Your task to perform on an android device: Go to Amazon Image 0: 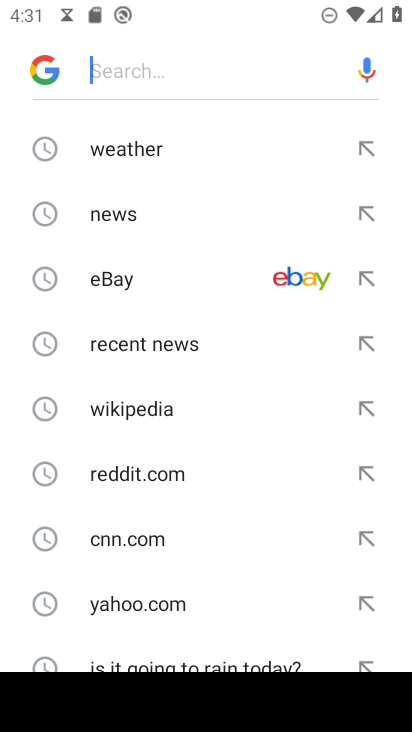
Step 0: press home button
Your task to perform on an android device: Go to Amazon Image 1: 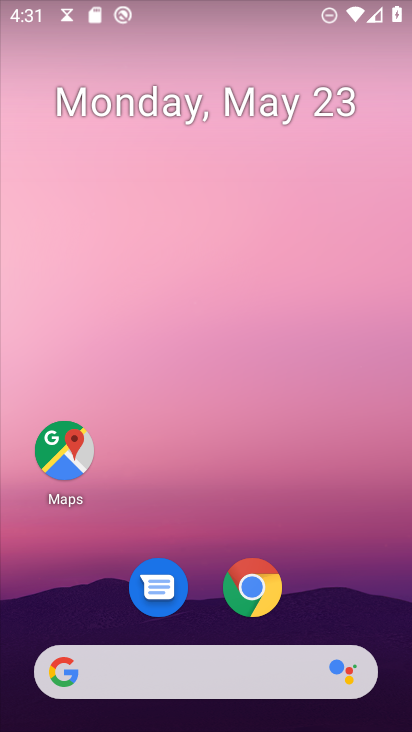
Step 1: click (241, 578)
Your task to perform on an android device: Go to Amazon Image 2: 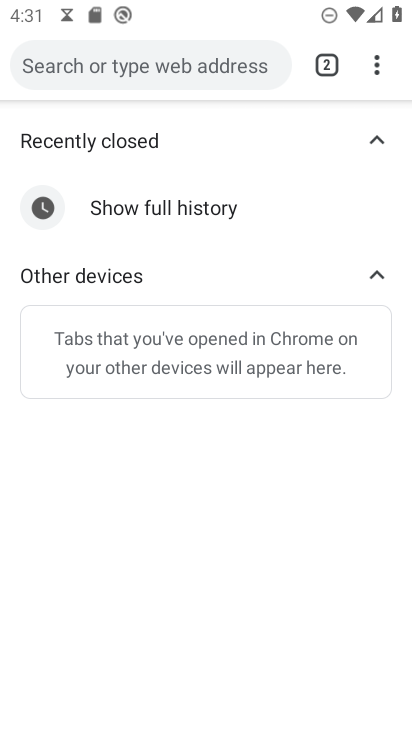
Step 2: click (220, 59)
Your task to perform on an android device: Go to Amazon Image 3: 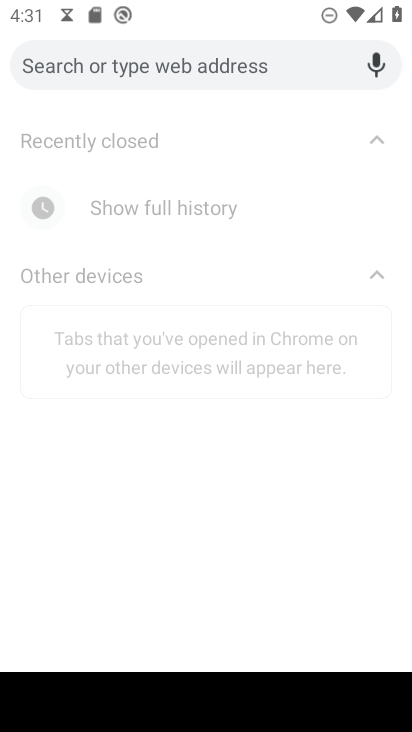
Step 3: type ""
Your task to perform on an android device: Go to Amazon Image 4: 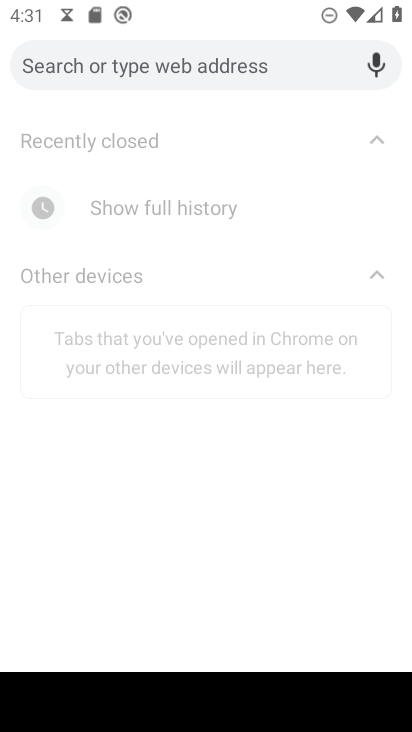
Step 4: type "Amazon"
Your task to perform on an android device: Go to Amazon Image 5: 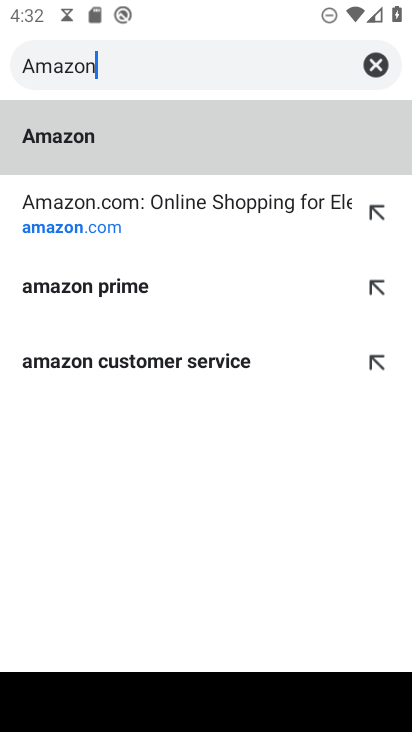
Step 5: click (164, 152)
Your task to perform on an android device: Go to Amazon Image 6: 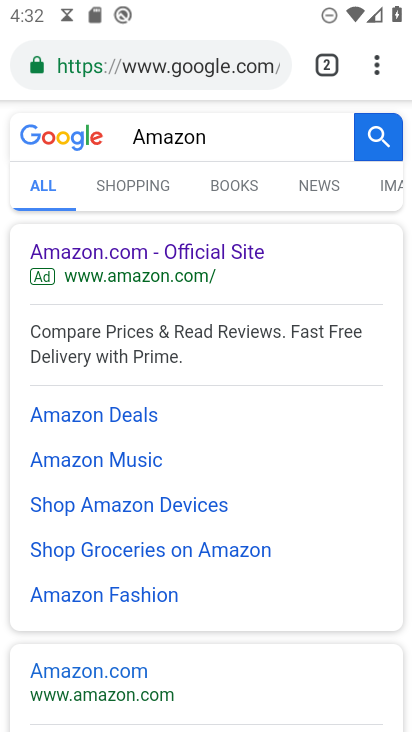
Step 6: click (172, 272)
Your task to perform on an android device: Go to Amazon Image 7: 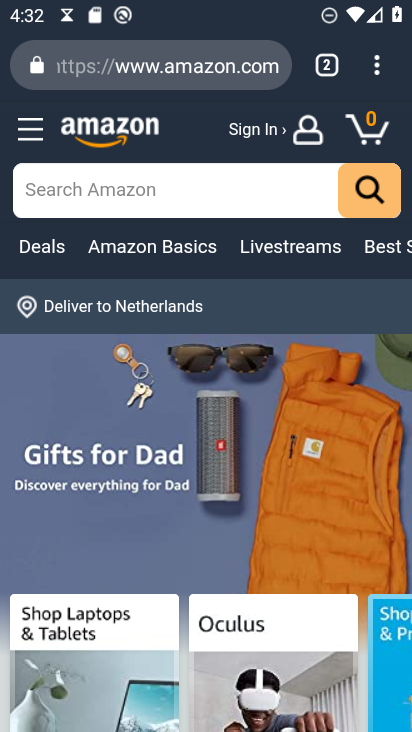
Step 7: task complete